Your task to perform on an android device: manage bookmarks in the chrome app Image 0: 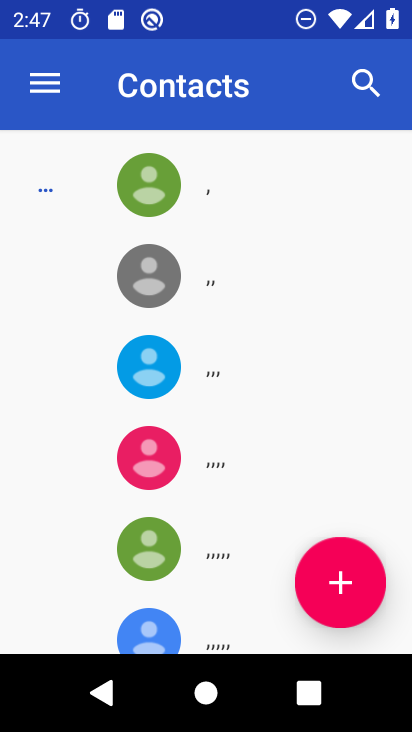
Step 0: press home button
Your task to perform on an android device: manage bookmarks in the chrome app Image 1: 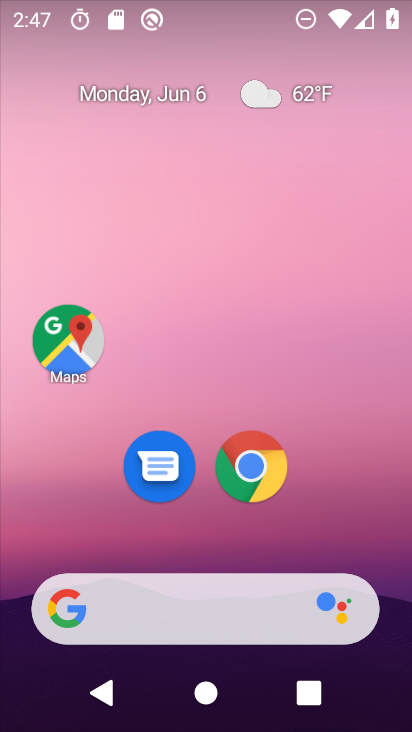
Step 1: click (249, 474)
Your task to perform on an android device: manage bookmarks in the chrome app Image 2: 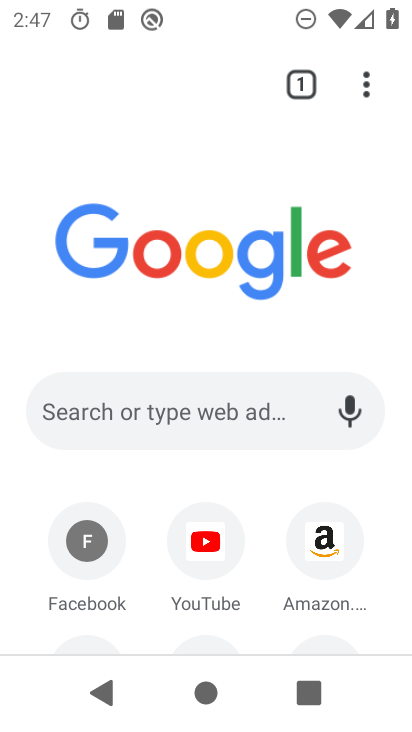
Step 2: click (360, 93)
Your task to perform on an android device: manage bookmarks in the chrome app Image 3: 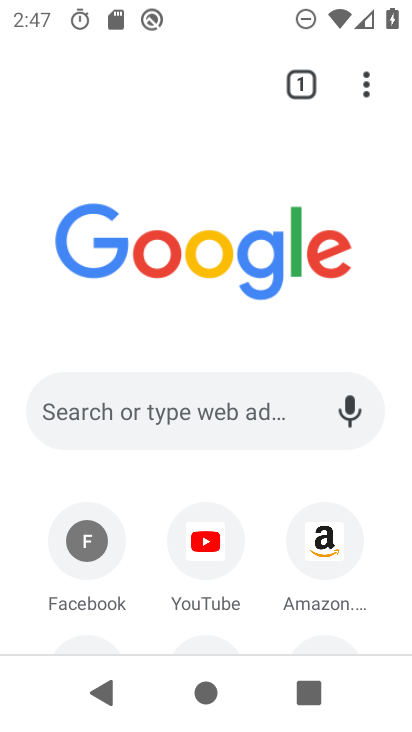
Step 3: click (365, 88)
Your task to perform on an android device: manage bookmarks in the chrome app Image 4: 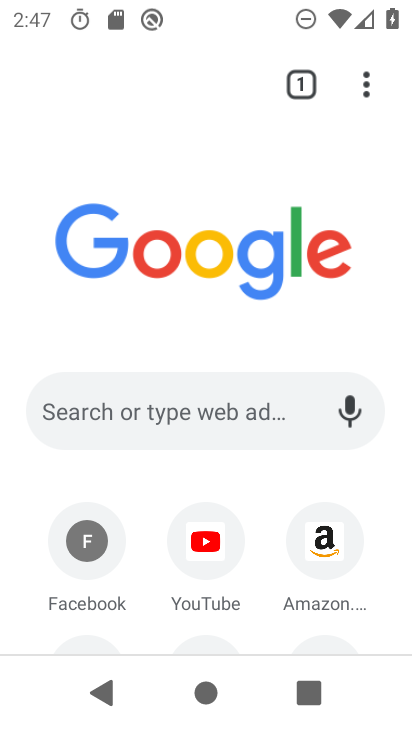
Step 4: click (371, 82)
Your task to perform on an android device: manage bookmarks in the chrome app Image 5: 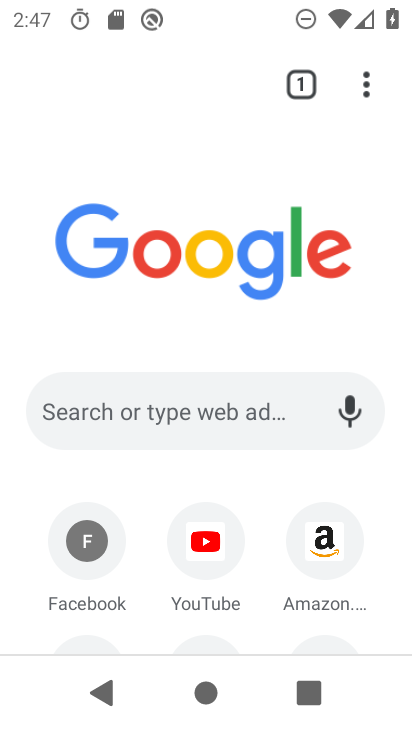
Step 5: click (365, 93)
Your task to perform on an android device: manage bookmarks in the chrome app Image 6: 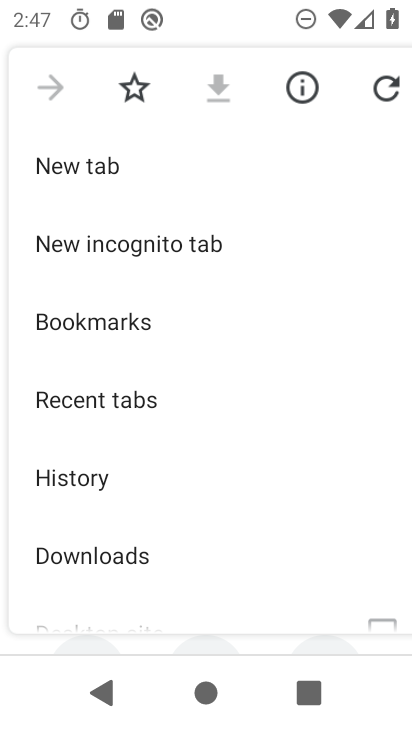
Step 6: click (145, 317)
Your task to perform on an android device: manage bookmarks in the chrome app Image 7: 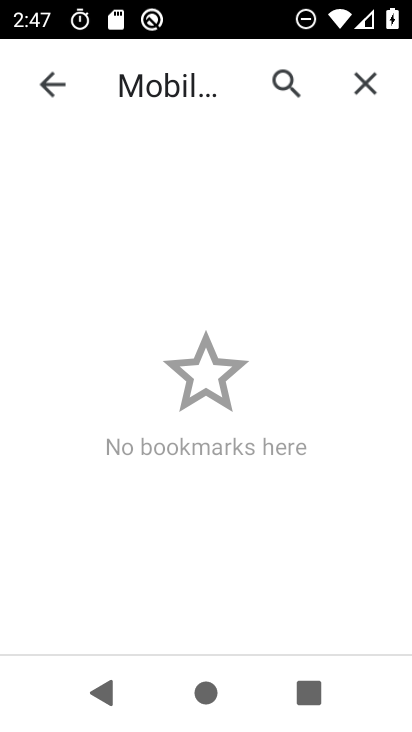
Step 7: task complete